Your task to perform on an android device: Go to Maps Image 0: 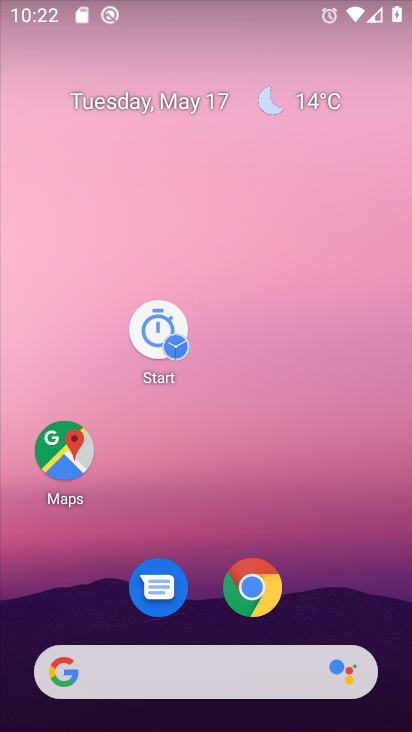
Step 0: drag from (274, 652) to (253, 190)
Your task to perform on an android device: Go to Maps Image 1: 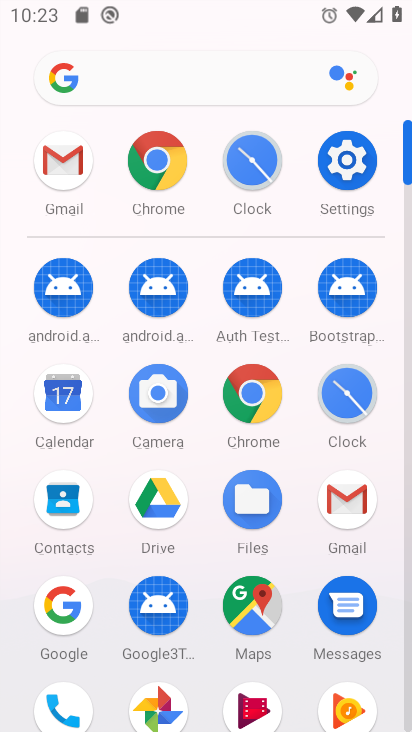
Step 1: click (235, 609)
Your task to perform on an android device: Go to Maps Image 2: 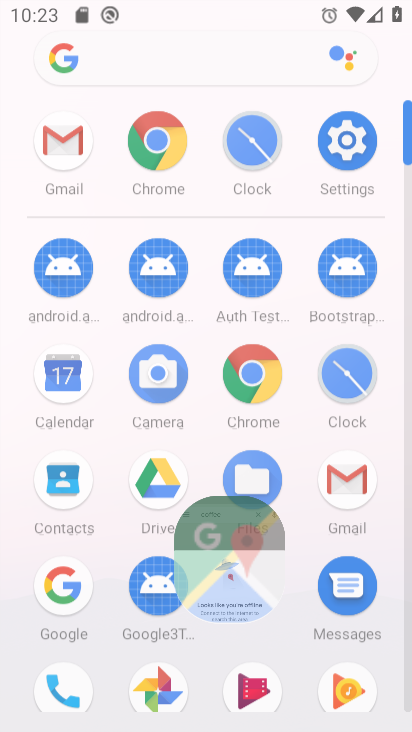
Step 2: click (235, 609)
Your task to perform on an android device: Go to Maps Image 3: 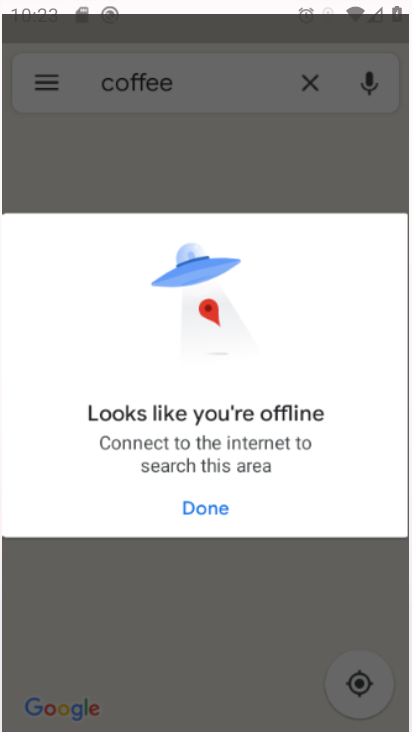
Step 3: task complete